Your task to perform on an android device: Search for seafood restaurants on Google Maps Image 0: 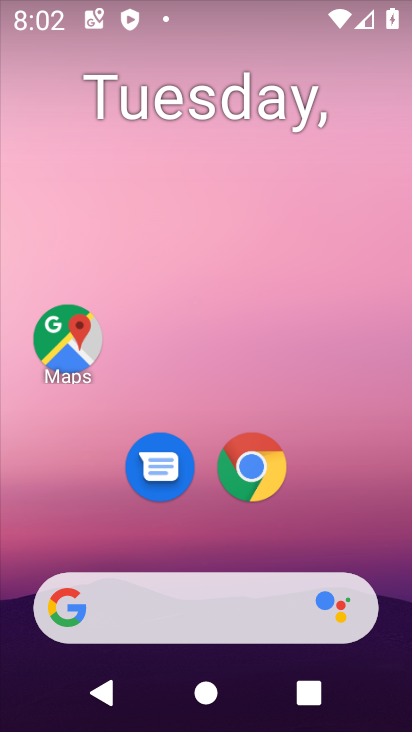
Step 0: click (76, 322)
Your task to perform on an android device: Search for seafood restaurants on Google Maps Image 1: 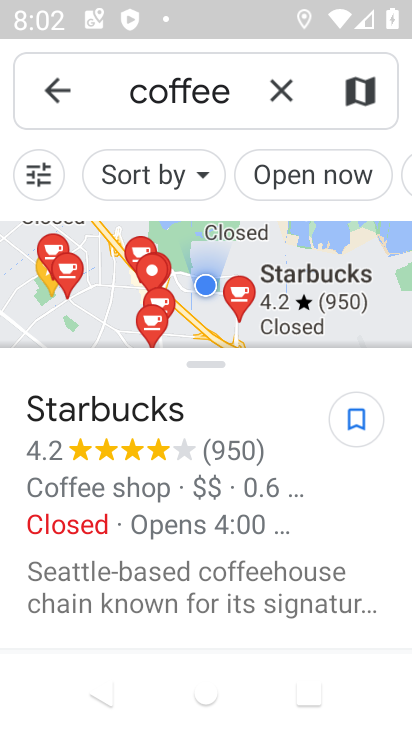
Step 1: click (282, 87)
Your task to perform on an android device: Search for seafood restaurants on Google Maps Image 2: 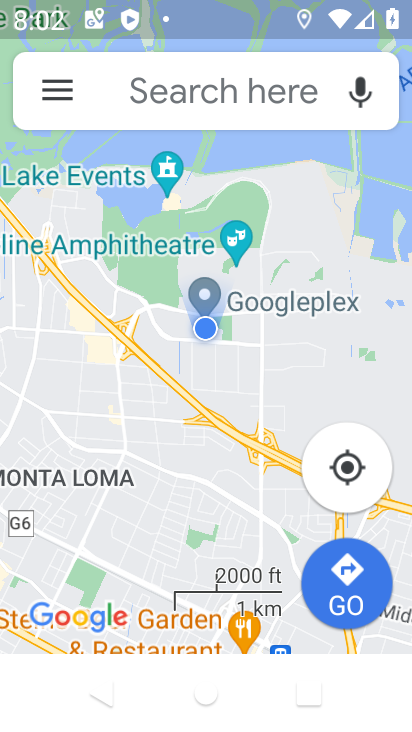
Step 2: click (221, 83)
Your task to perform on an android device: Search for seafood restaurants on Google Maps Image 3: 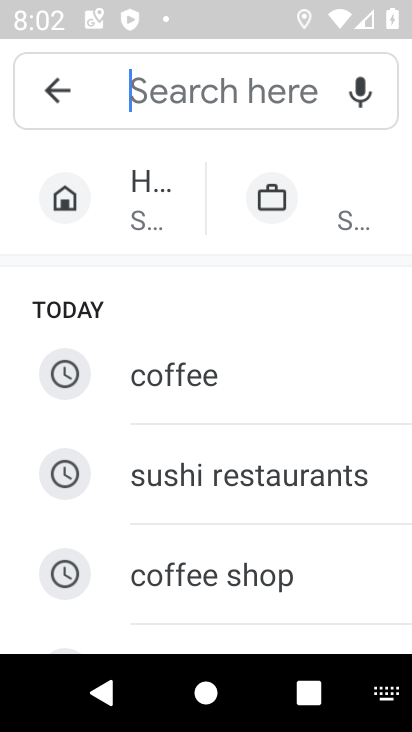
Step 3: type "seafood restaurants"
Your task to perform on an android device: Search for seafood restaurants on Google Maps Image 4: 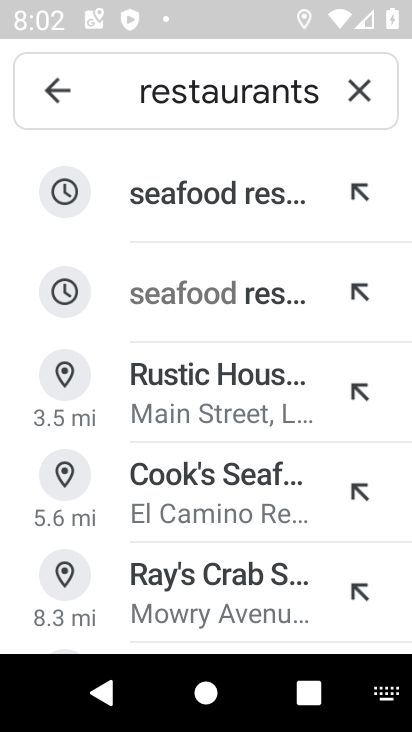
Step 4: click (310, 180)
Your task to perform on an android device: Search for seafood restaurants on Google Maps Image 5: 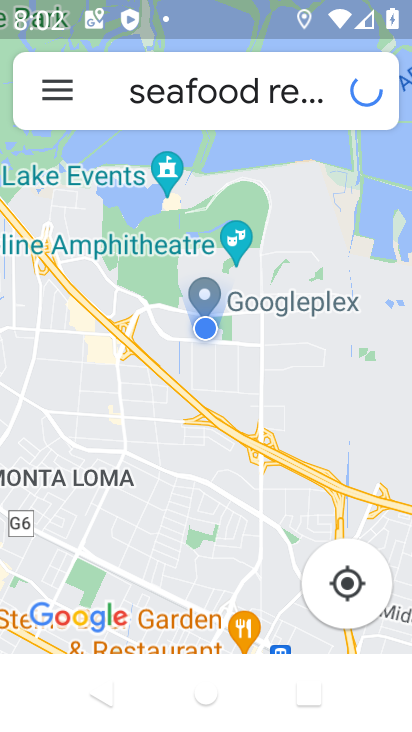
Step 5: click (310, 180)
Your task to perform on an android device: Search for seafood restaurants on Google Maps Image 6: 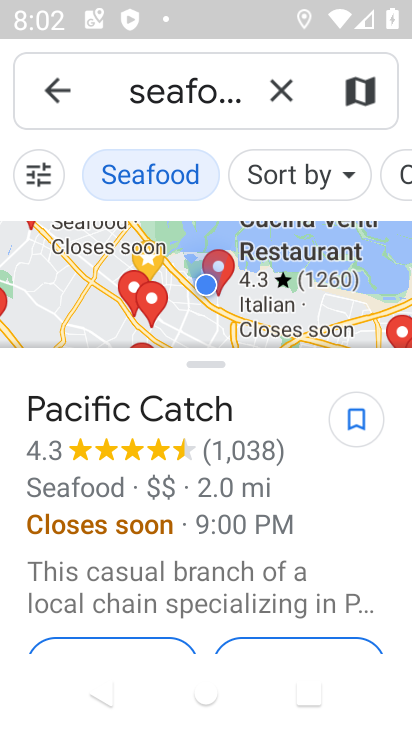
Step 6: task complete